Your task to perform on an android device: Search for "macbook" on newegg.com, select the first entry, add it to the cart, then select checkout. Image 0: 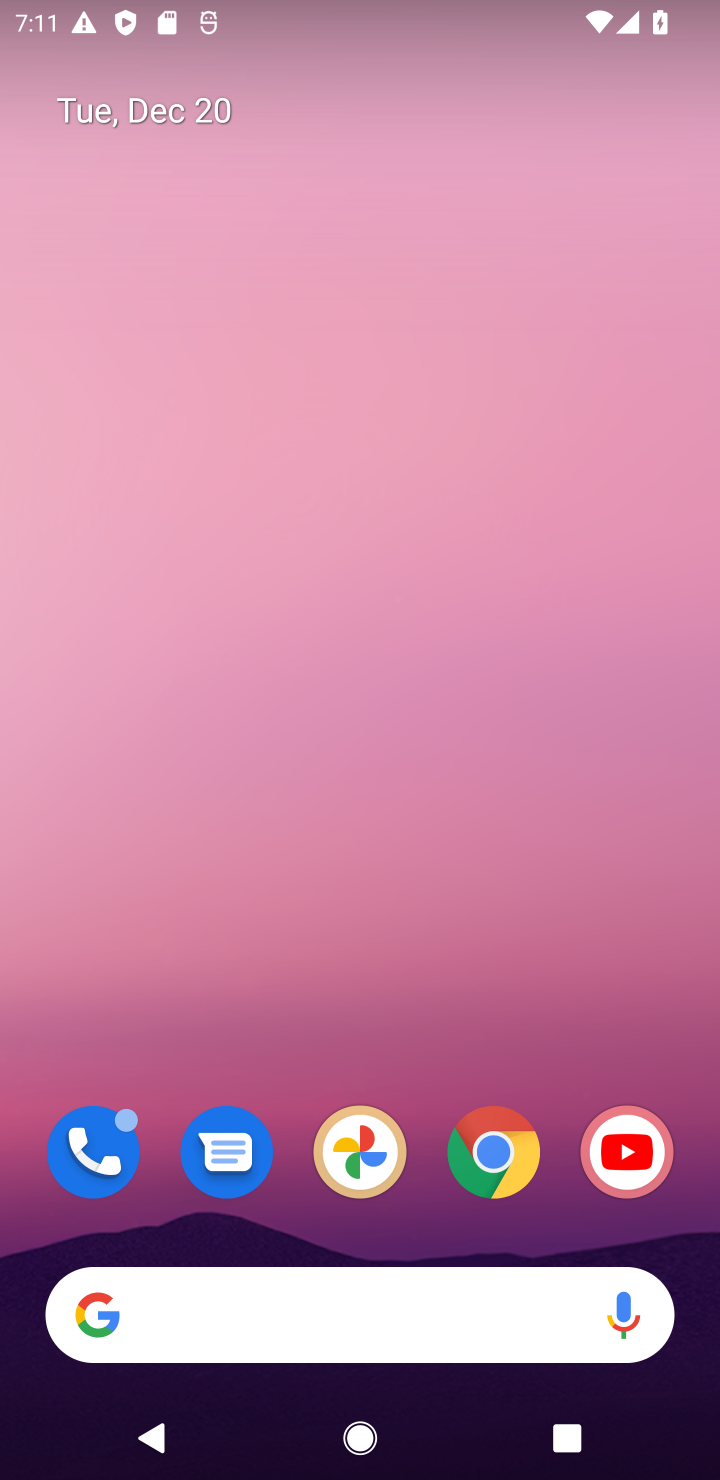
Step 0: click (506, 1175)
Your task to perform on an android device: Search for "macbook" on newegg.com, select the first entry, add it to the cart, then select checkout. Image 1: 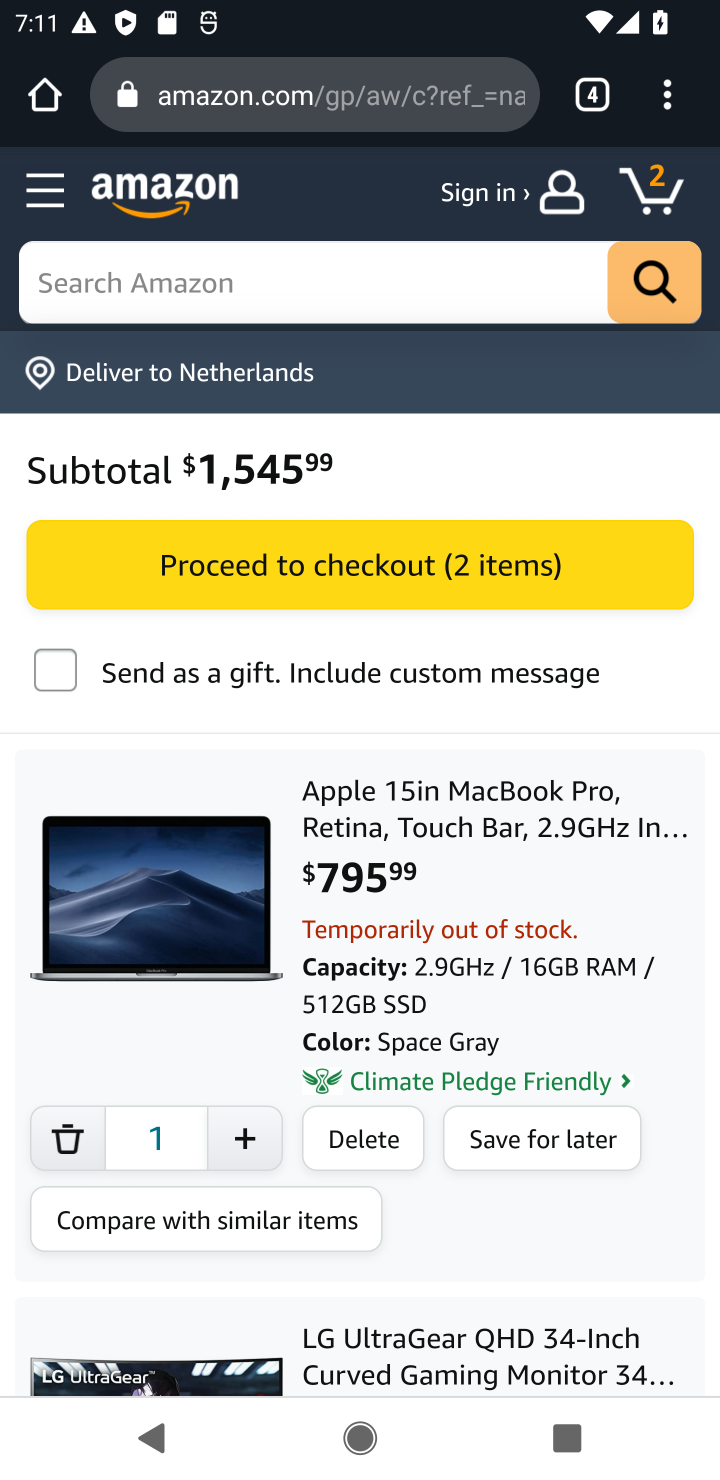
Step 1: click (578, 97)
Your task to perform on an android device: Search for "macbook" on newegg.com, select the first entry, add it to the cart, then select checkout. Image 2: 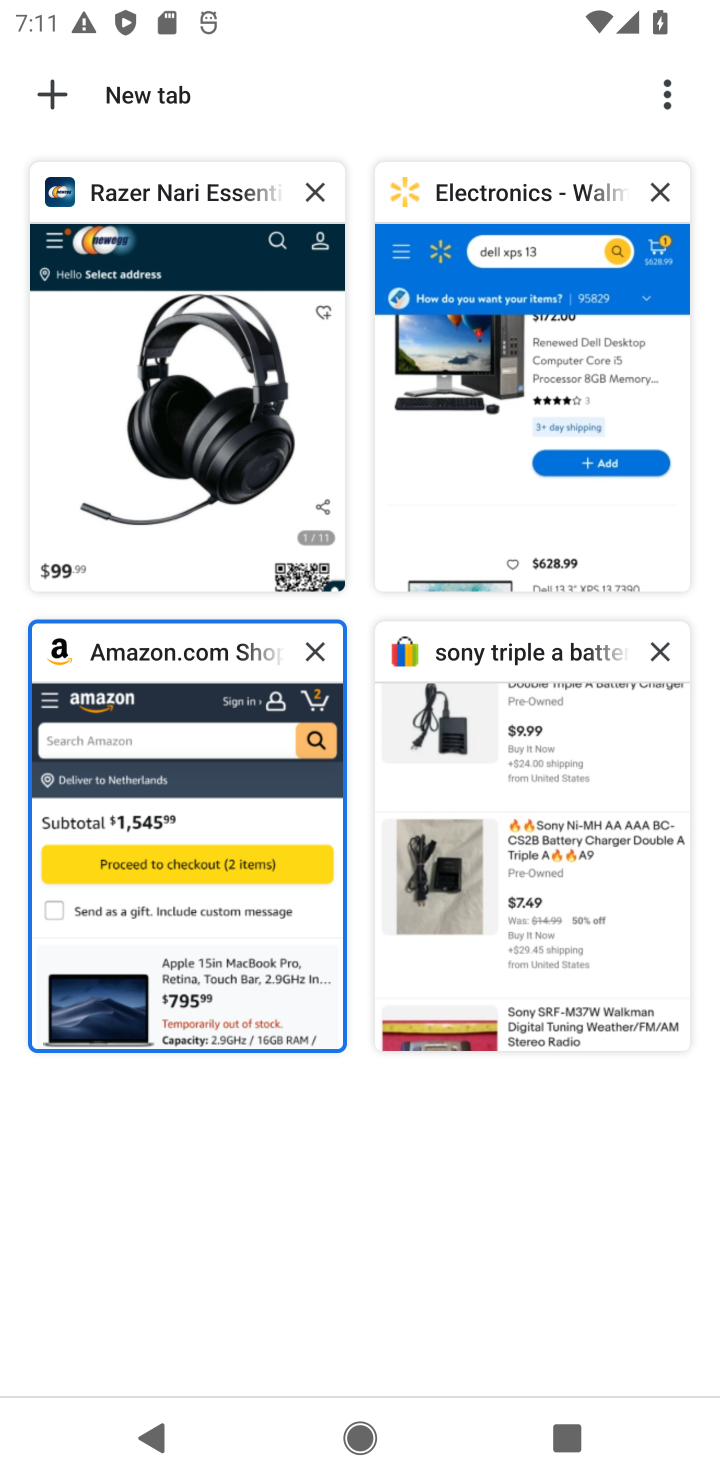
Step 2: click (127, 489)
Your task to perform on an android device: Search for "macbook" on newegg.com, select the first entry, add it to the cart, then select checkout. Image 3: 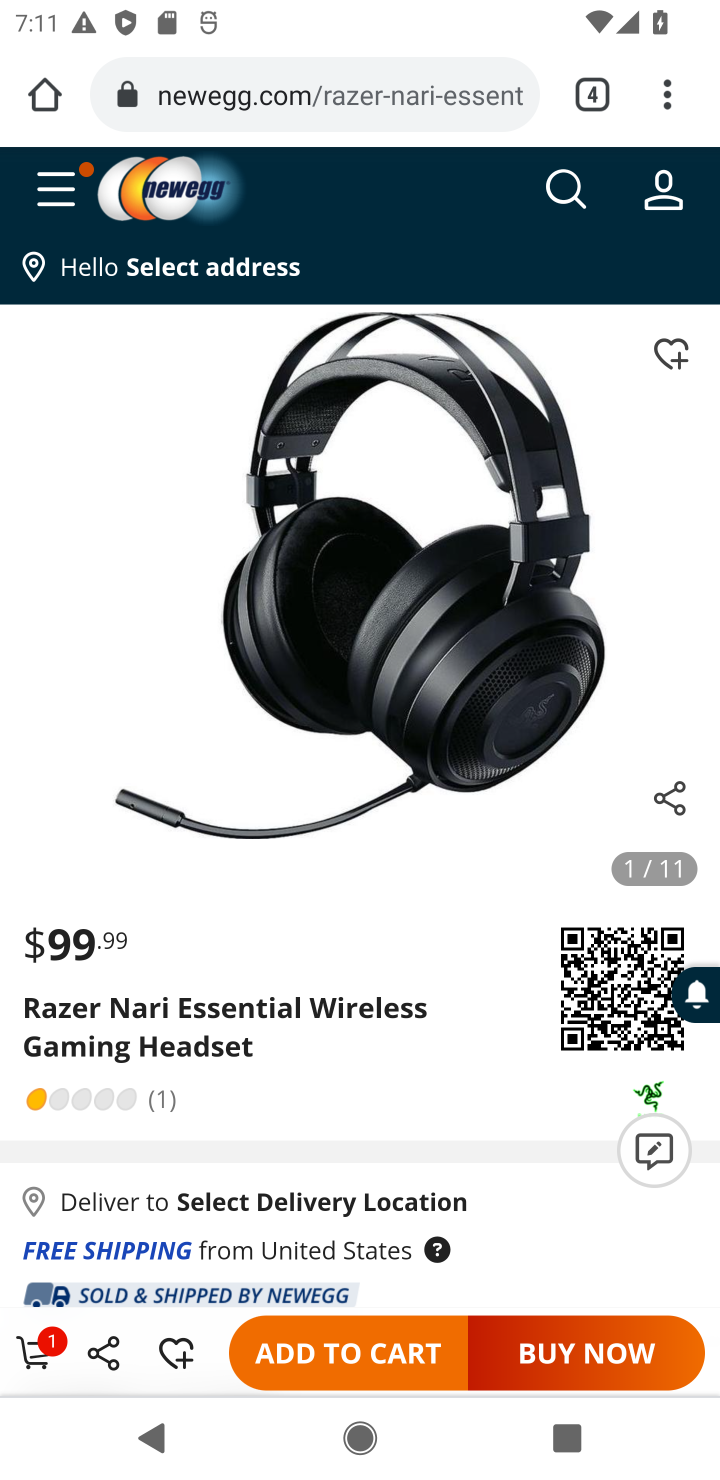
Step 3: click (580, 196)
Your task to perform on an android device: Search for "macbook" on newegg.com, select the first entry, add it to the cart, then select checkout. Image 4: 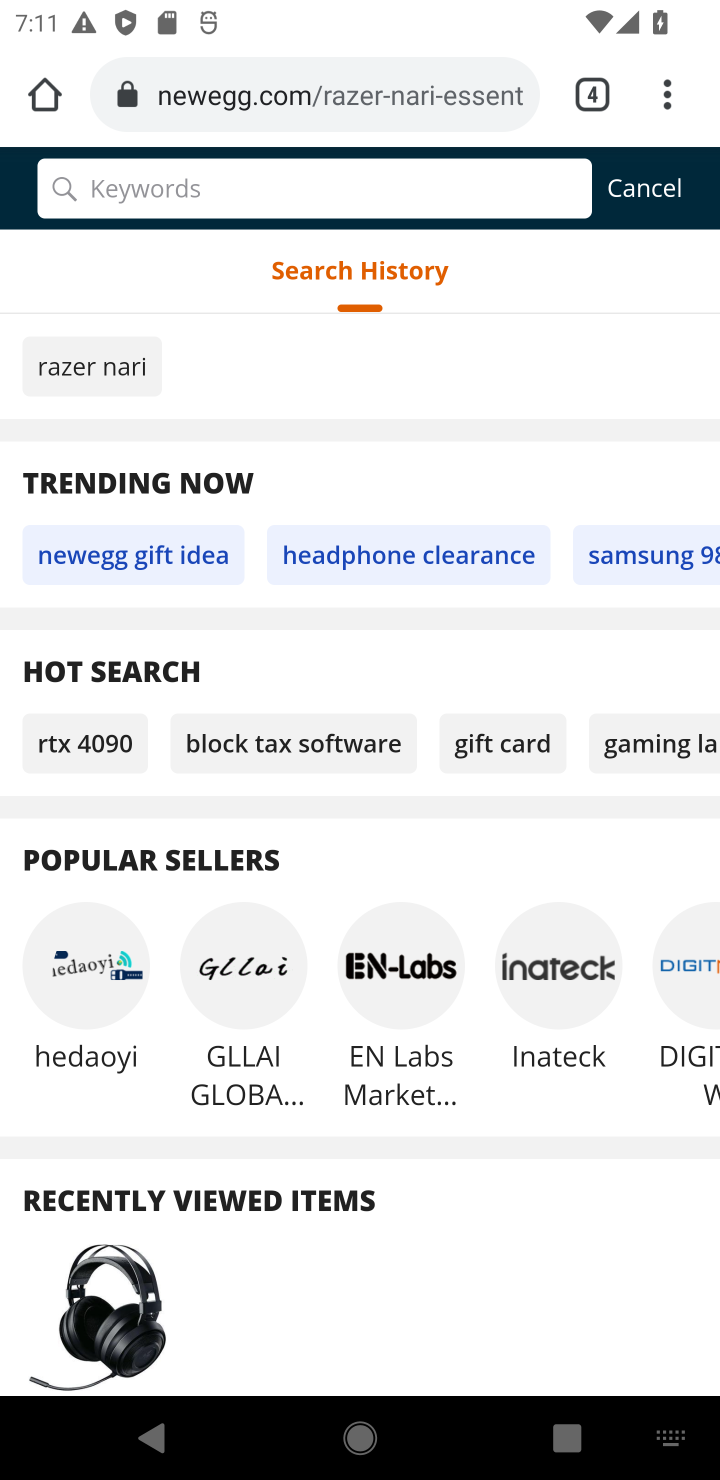
Step 4: type "macbook"
Your task to perform on an android device: Search for "macbook" on newegg.com, select the first entry, add it to the cart, then select checkout. Image 5: 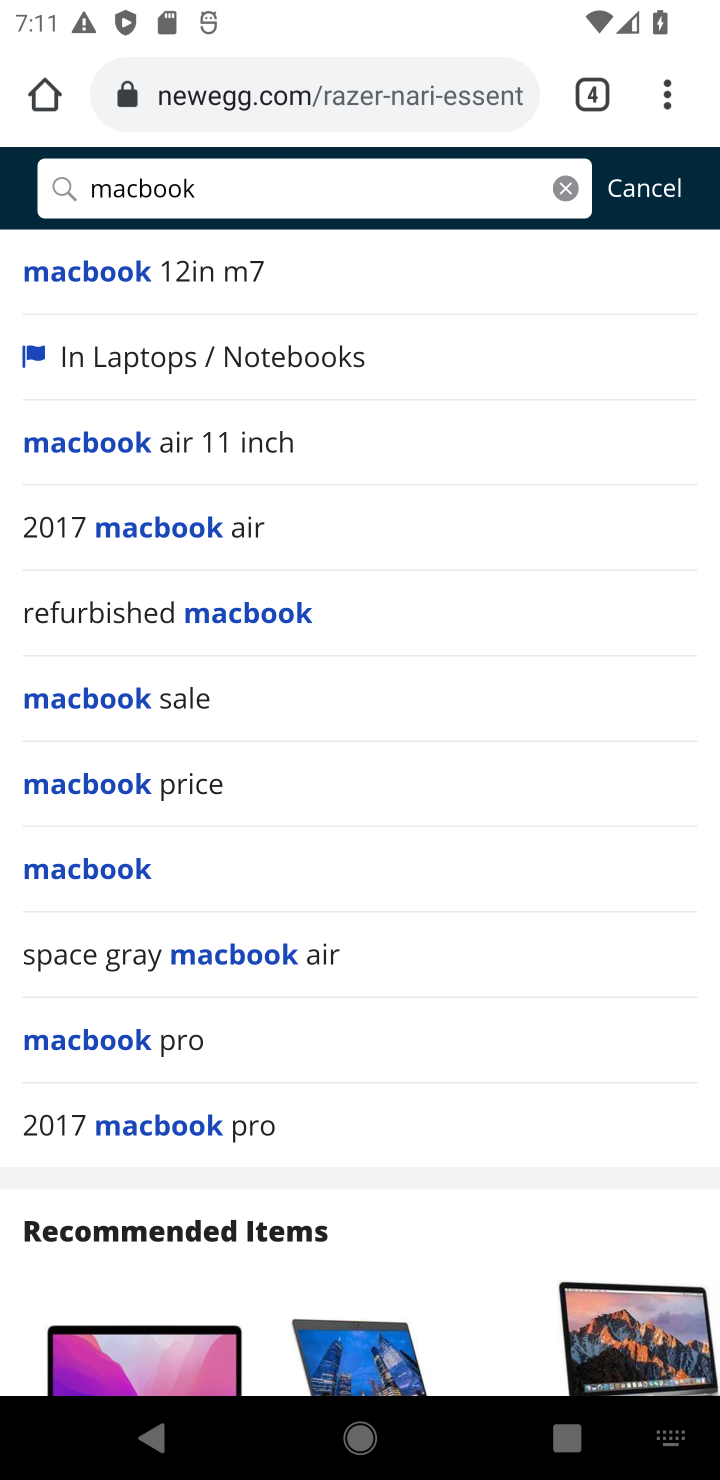
Step 5: click (77, 870)
Your task to perform on an android device: Search for "macbook" on newegg.com, select the first entry, add it to the cart, then select checkout. Image 6: 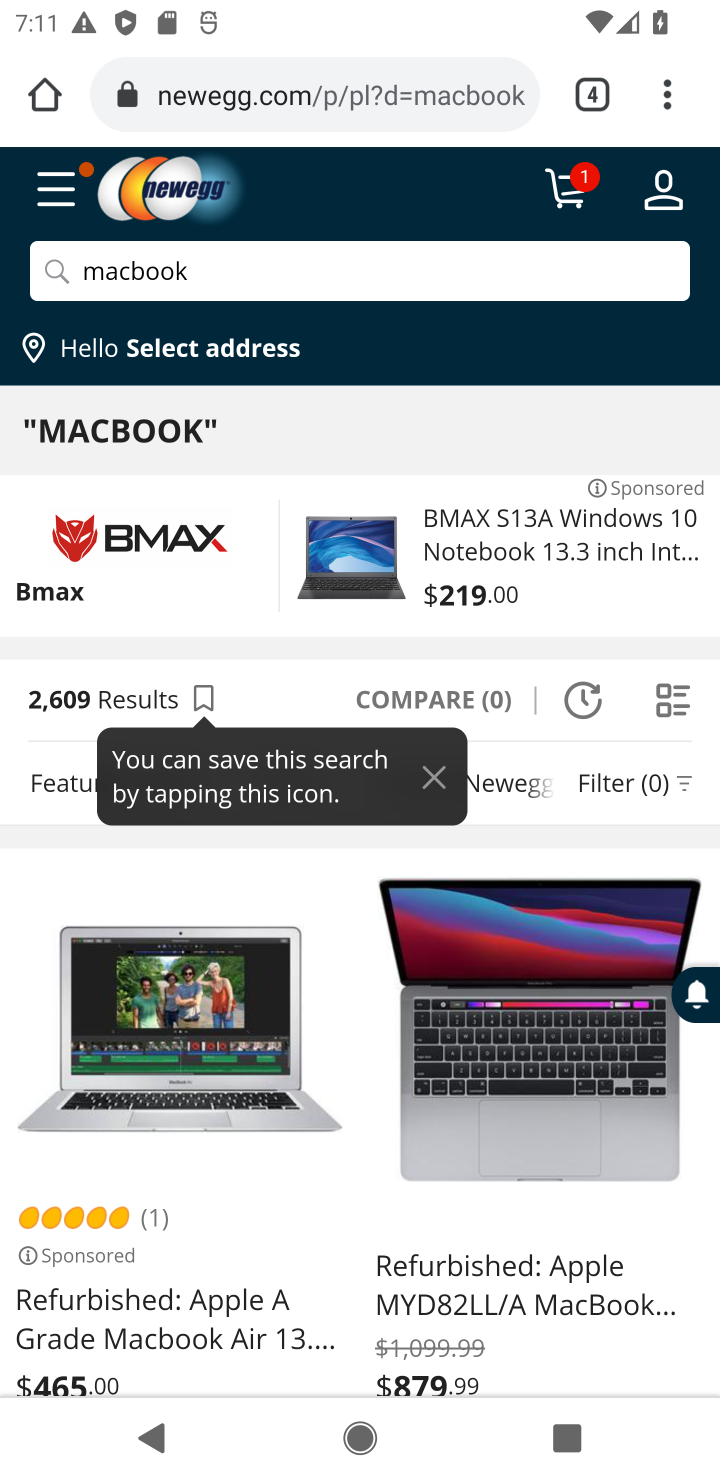
Step 6: click (397, 1296)
Your task to perform on an android device: Search for "macbook" on newegg.com, select the first entry, add it to the cart, then select checkout. Image 7: 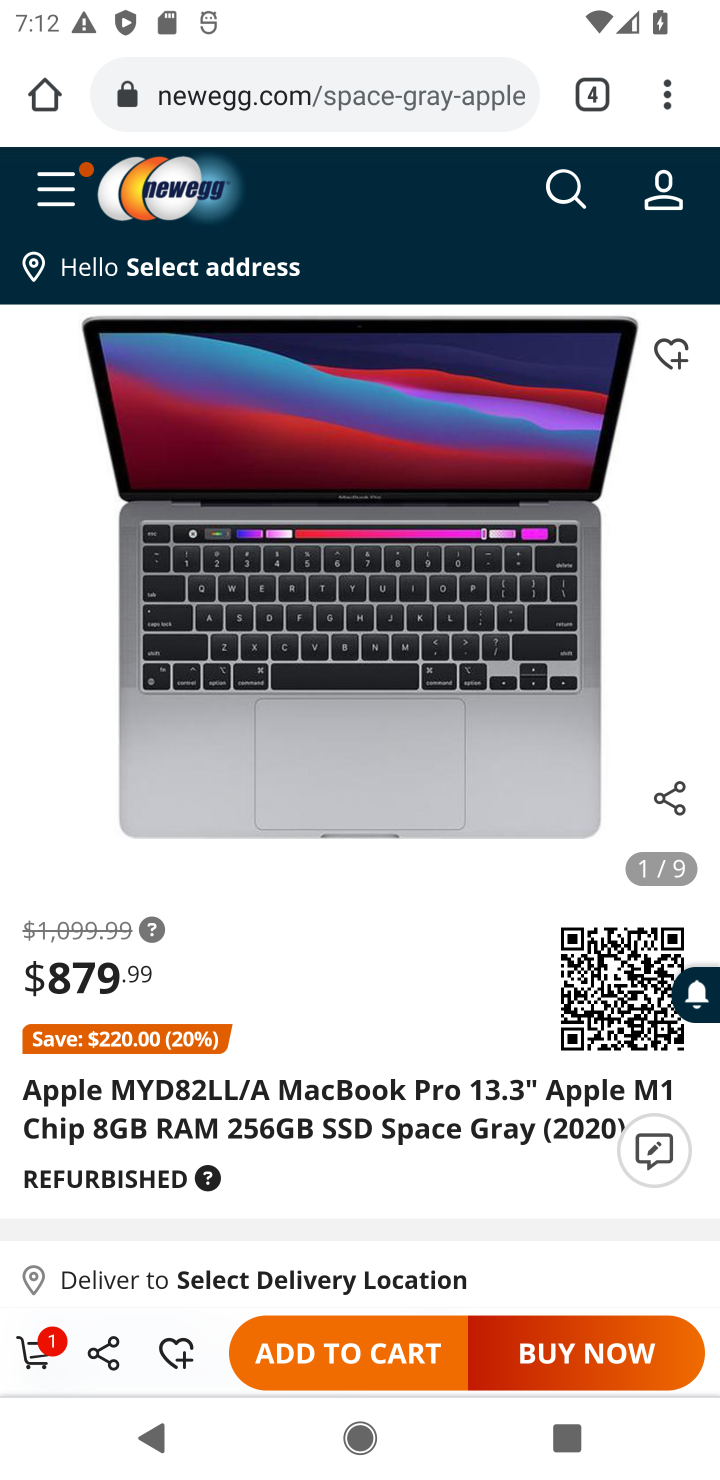
Step 7: click (374, 1345)
Your task to perform on an android device: Search for "macbook" on newegg.com, select the first entry, add it to the cart, then select checkout. Image 8: 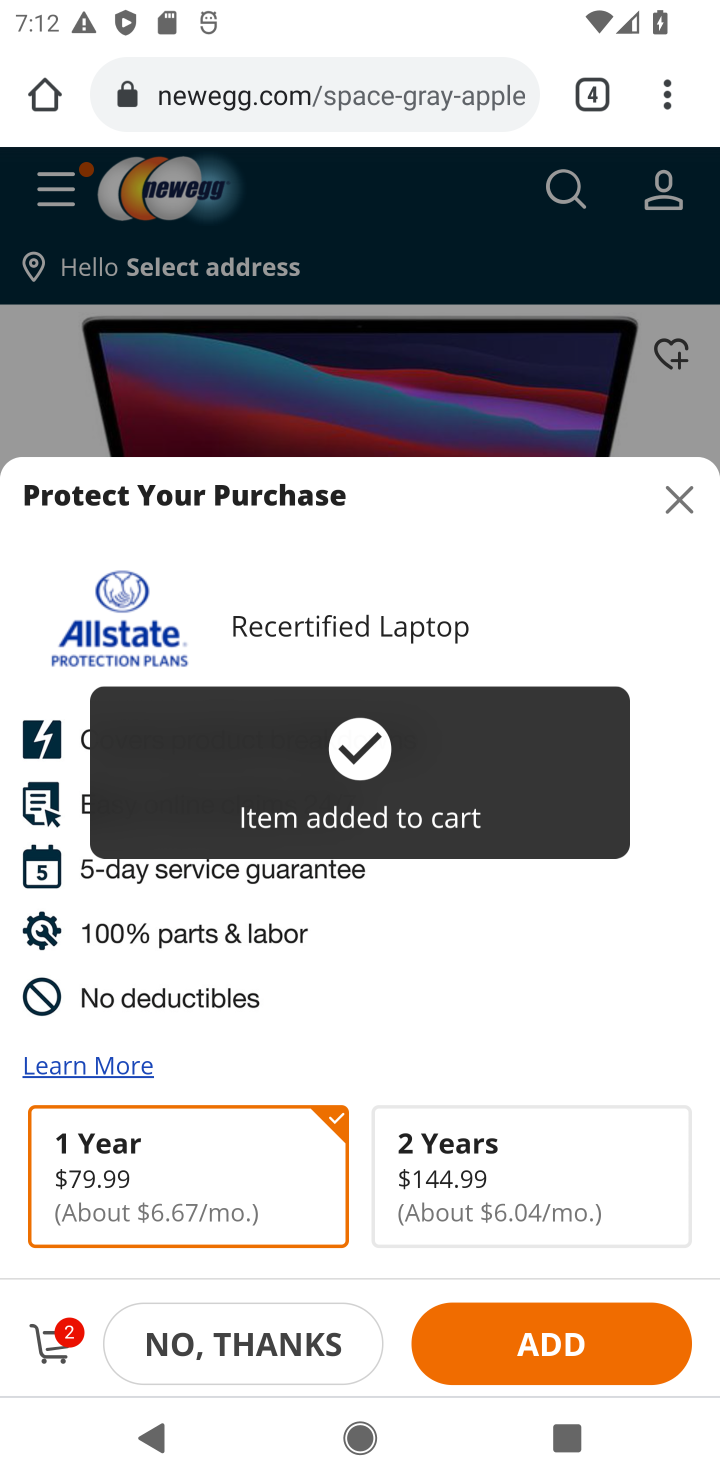
Step 8: task complete